Your task to perform on an android device: toggle data saver in the chrome app Image 0: 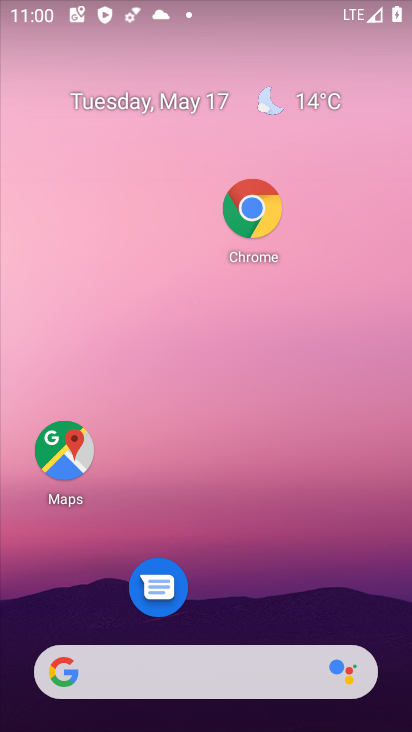
Step 0: click (255, 213)
Your task to perform on an android device: toggle data saver in the chrome app Image 1: 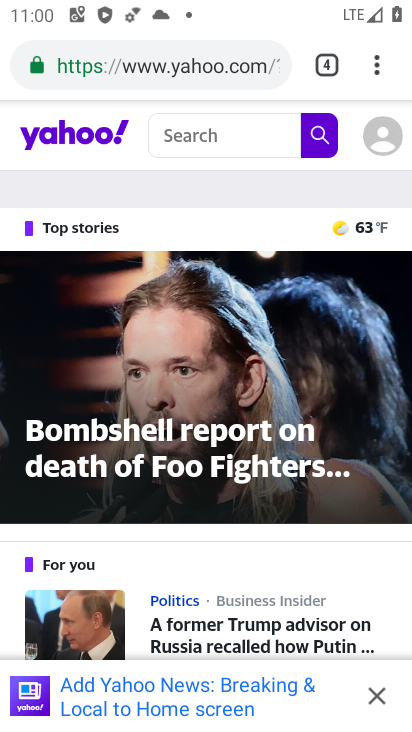
Step 1: click (381, 61)
Your task to perform on an android device: toggle data saver in the chrome app Image 2: 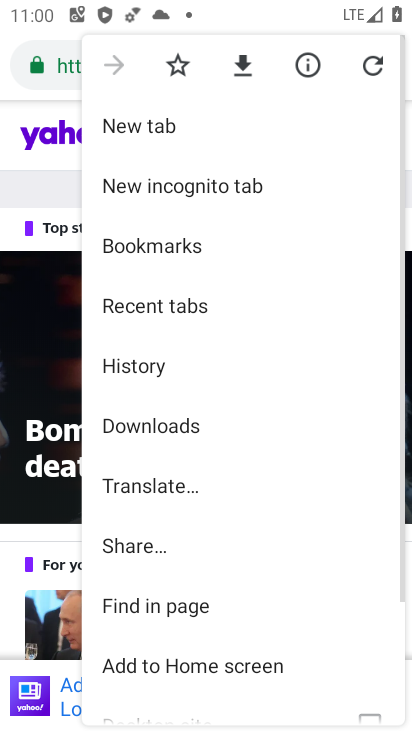
Step 2: drag from (266, 587) to (273, 259)
Your task to perform on an android device: toggle data saver in the chrome app Image 3: 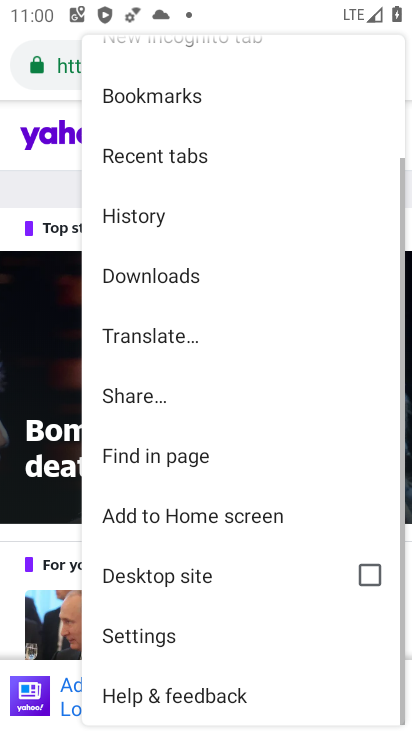
Step 3: click (152, 643)
Your task to perform on an android device: toggle data saver in the chrome app Image 4: 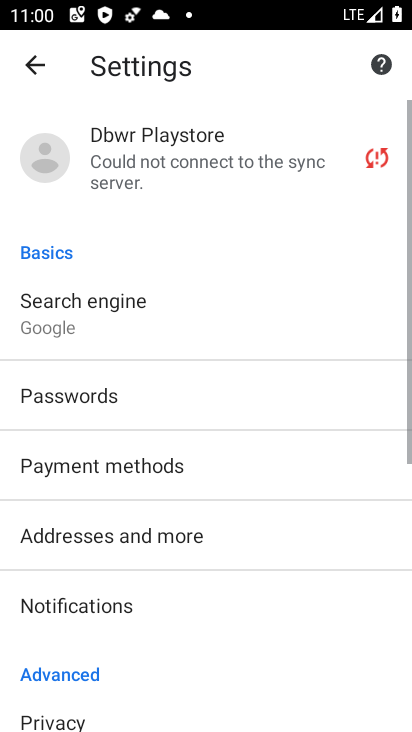
Step 4: drag from (152, 643) to (220, 266)
Your task to perform on an android device: toggle data saver in the chrome app Image 5: 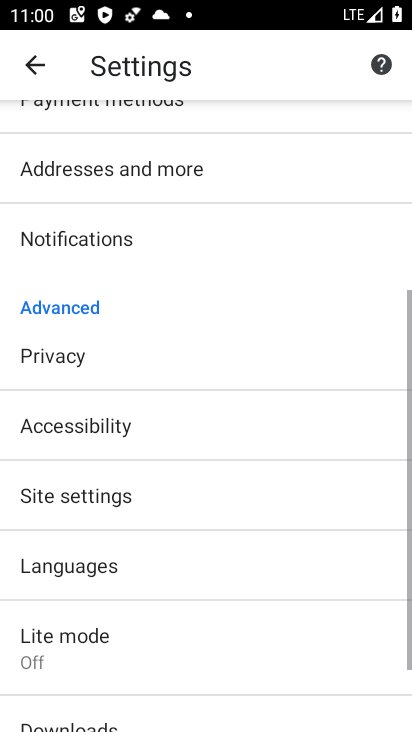
Step 5: click (108, 639)
Your task to perform on an android device: toggle data saver in the chrome app Image 6: 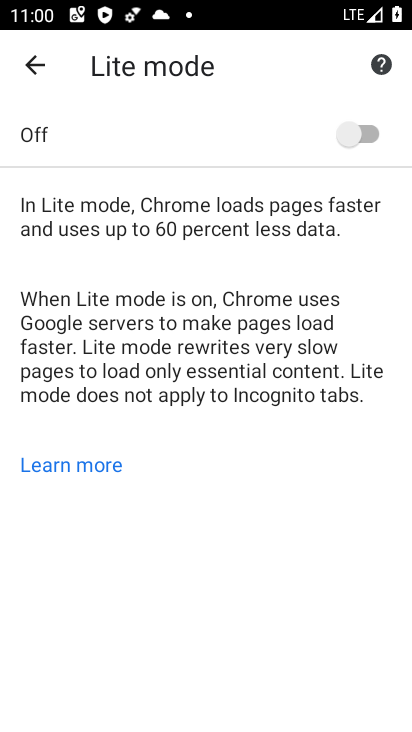
Step 6: click (361, 136)
Your task to perform on an android device: toggle data saver in the chrome app Image 7: 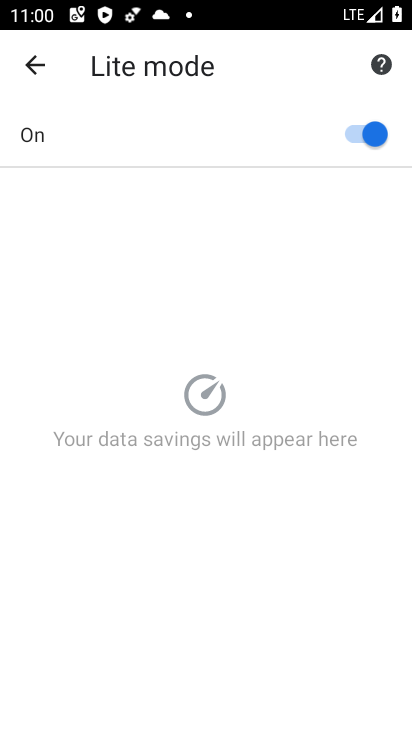
Step 7: task complete